Your task to perform on an android device: Open Google Maps Image 0: 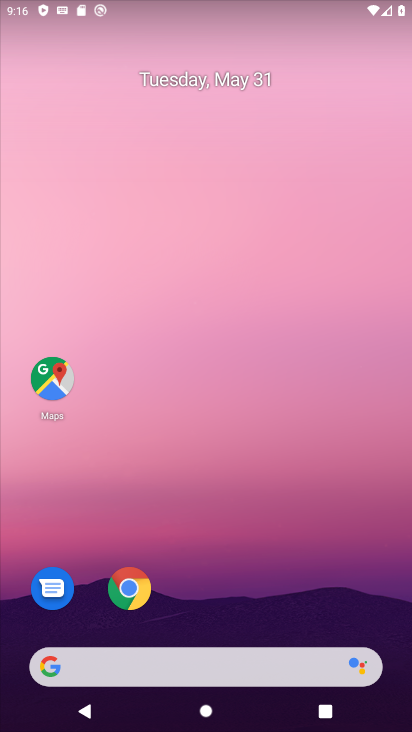
Step 0: click (55, 388)
Your task to perform on an android device: Open Google Maps Image 1: 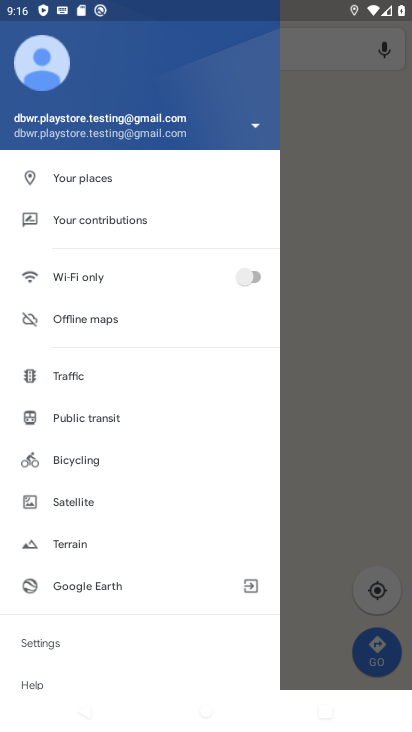
Step 1: click (376, 326)
Your task to perform on an android device: Open Google Maps Image 2: 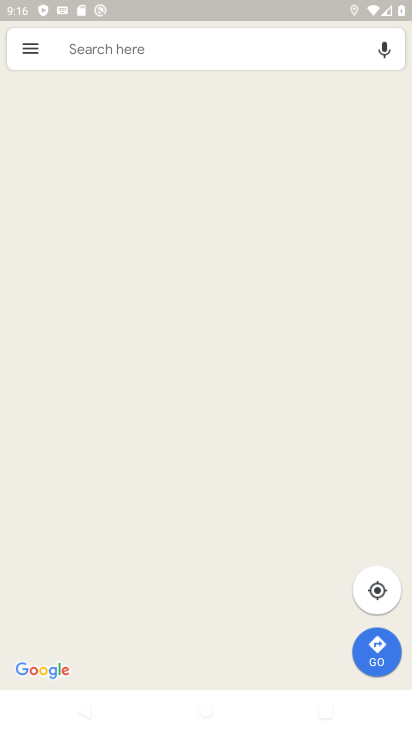
Step 2: task complete